Your task to perform on an android device: turn smart compose on in the gmail app Image 0: 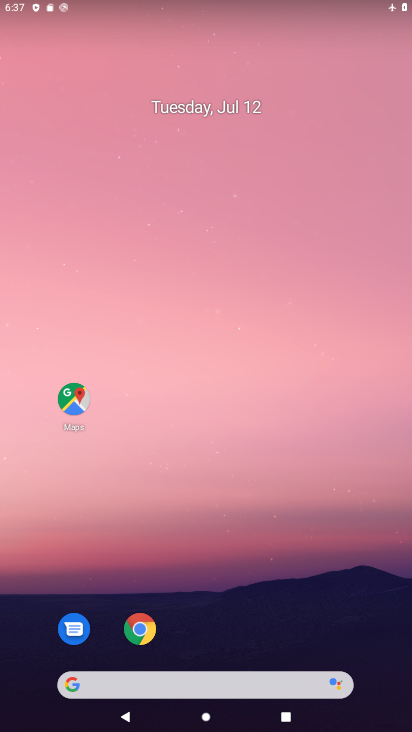
Step 0: drag from (248, 561) to (177, 10)
Your task to perform on an android device: turn smart compose on in the gmail app Image 1: 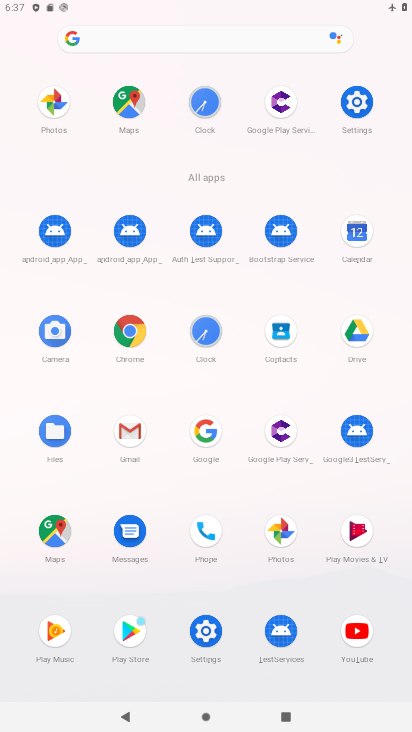
Step 1: click (131, 436)
Your task to perform on an android device: turn smart compose on in the gmail app Image 2: 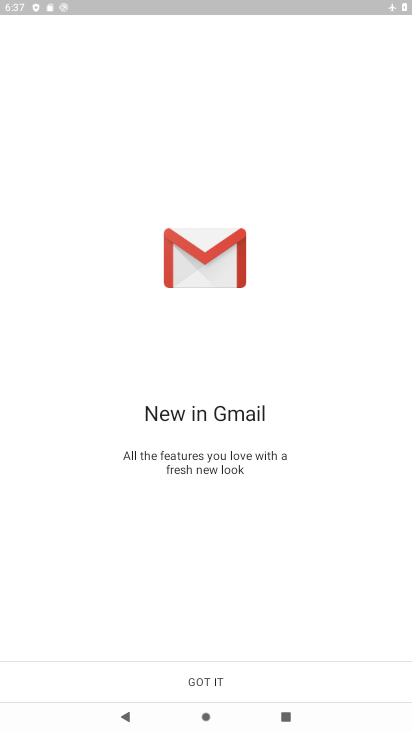
Step 2: click (203, 682)
Your task to perform on an android device: turn smart compose on in the gmail app Image 3: 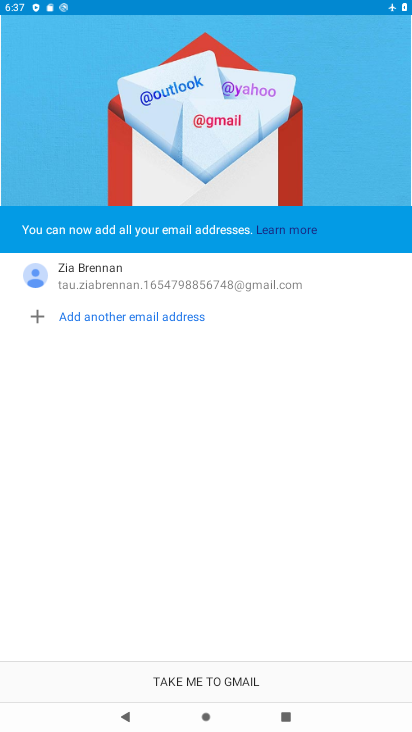
Step 3: click (203, 682)
Your task to perform on an android device: turn smart compose on in the gmail app Image 4: 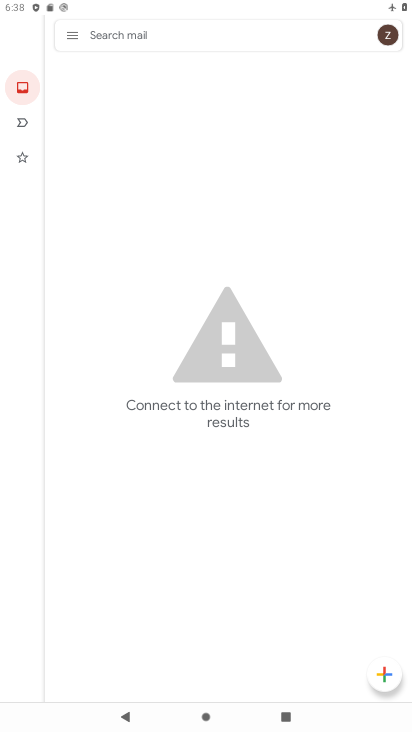
Step 4: click (68, 33)
Your task to perform on an android device: turn smart compose on in the gmail app Image 5: 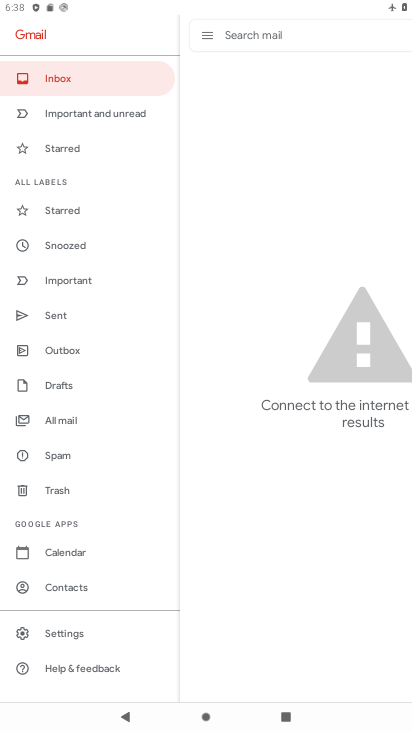
Step 5: click (71, 632)
Your task to perform on an android device: turn smart compose on in the gmail app Image 6: 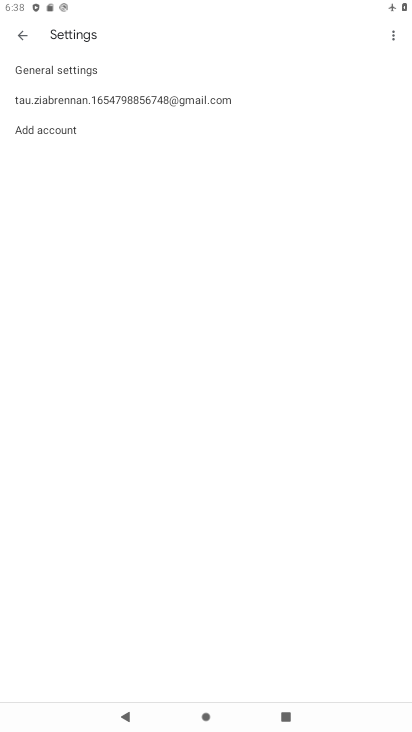
Step 6: click (57, 68)
Your task to perform on an android device: turn smart compose on in the gmail app Image 7: 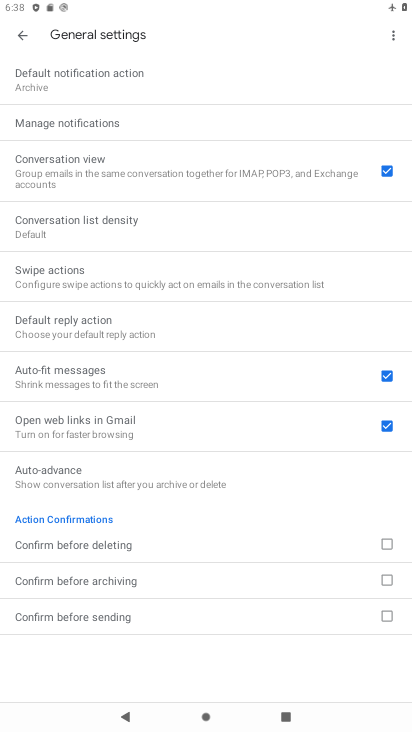
Step 7: drag from (224, 508) to (198, 153)
Your task to perform on an android device: turn smart compose on in the gmail app Image 8: 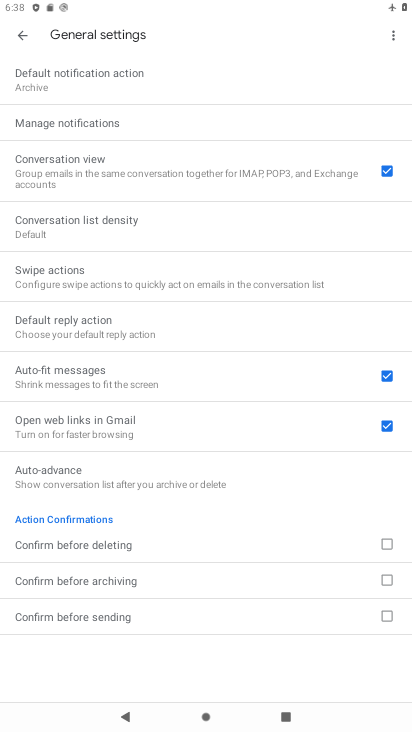
Step 8: click (21, 38)
Your task to perform on an android device: turn smart compose on in the gmail app Image 9: 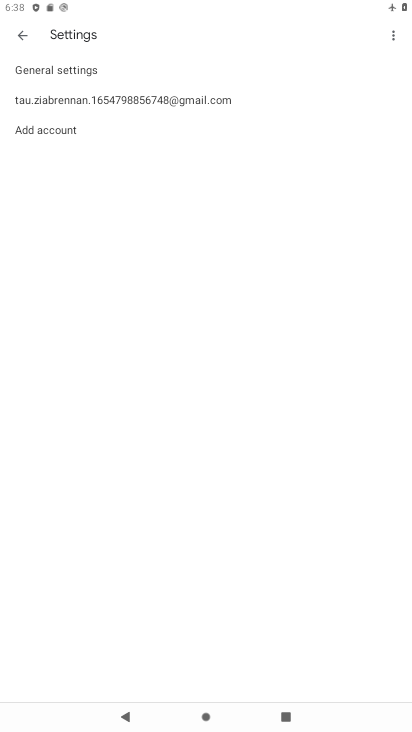
Step 9: click (70, 104)
Your task to perform on an android device: turn smart compose on in the gmail app Image 10: 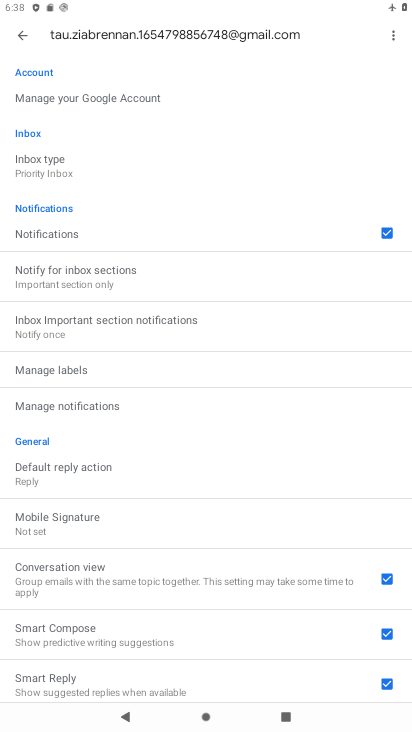
Step 10: task complete